Your task to perform on an android device: Search for vegetarian restaurants on Maps Image 0: 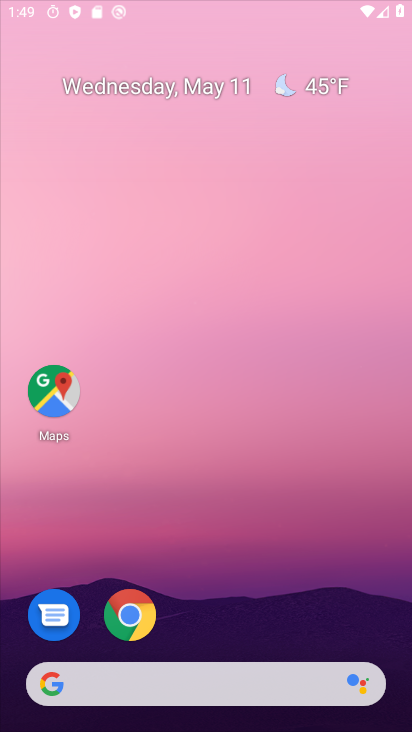
Step 0: click (194, 218)
Your task to perform on an android device: Search for vegetarian restaurants on Maps Image 1: 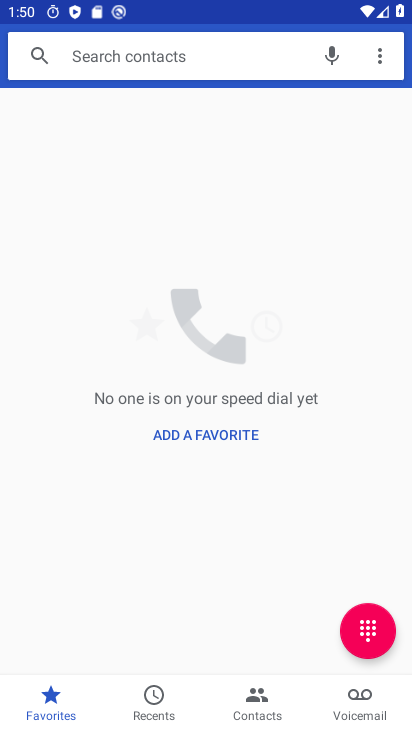
Step 1: press home button
Your task to perform on an android device: Search for vegetarian restaurants on Maps Image 2: 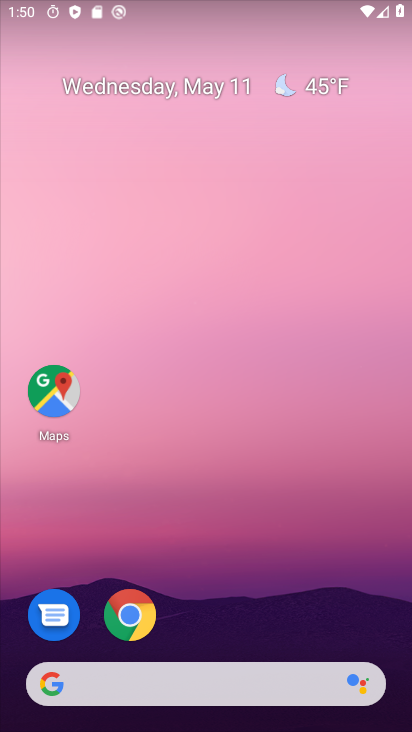
Step 2: click (57, 391)
Your task to perform on an android device: Search for vegetarian restaurants on Maps Image 3: 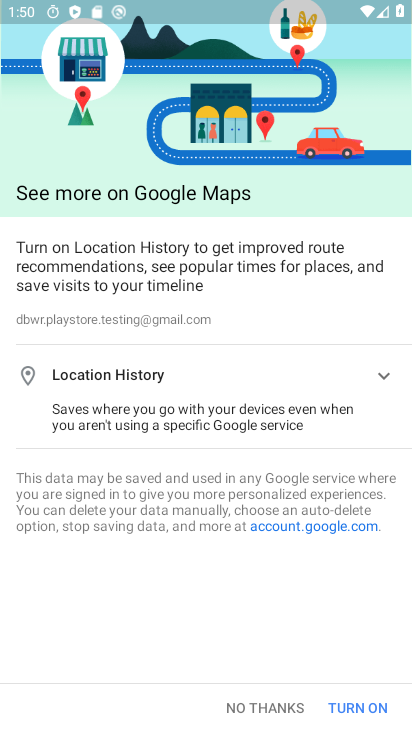
Step 3: click (356, 702)
Your task to perform on an android device: Search for vegetarian restaurants on Maps Image 4: 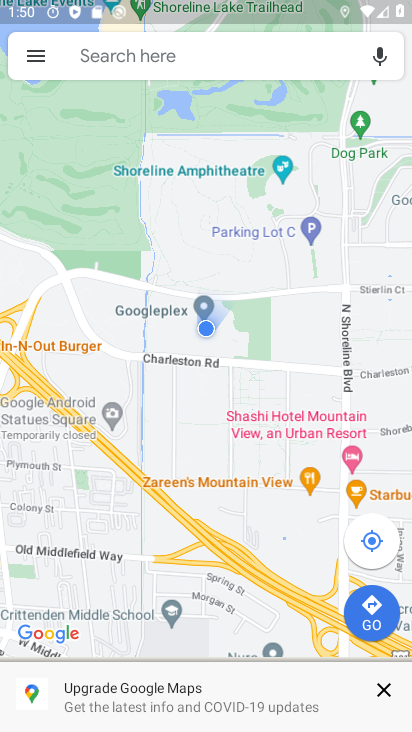
Step 4: click (380, 690)
Your task to perform on an android device: Search for vegetarian restaurants on Maps Image 5: 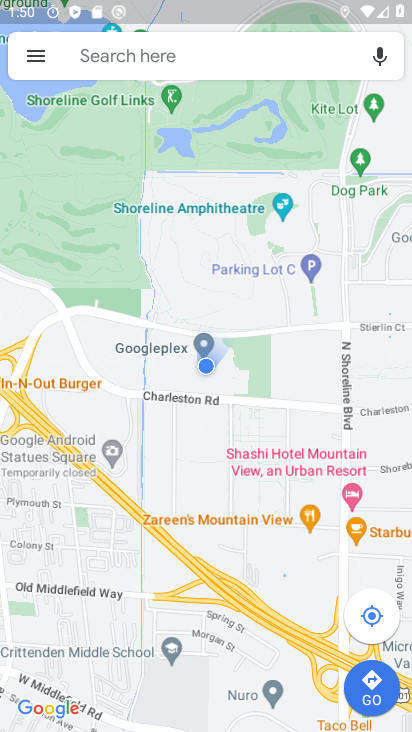
Step 5: click (166, 68)
Your task to perform on an android device: Search for vegetarian restaurants on Maps Image 6: 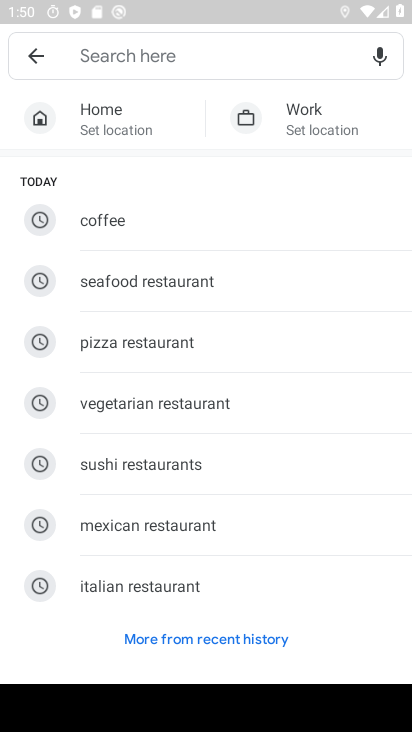
Step 6: click (232, 401)
Your task to perform on an android device: Search for vegetarian restaurants on Maps Image 7: 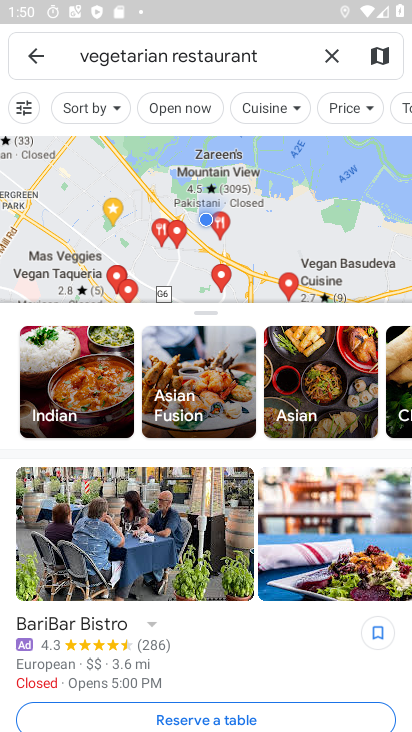
Step 7: task complete